Your task to perform on an android device: Go to Amazon Image 0: 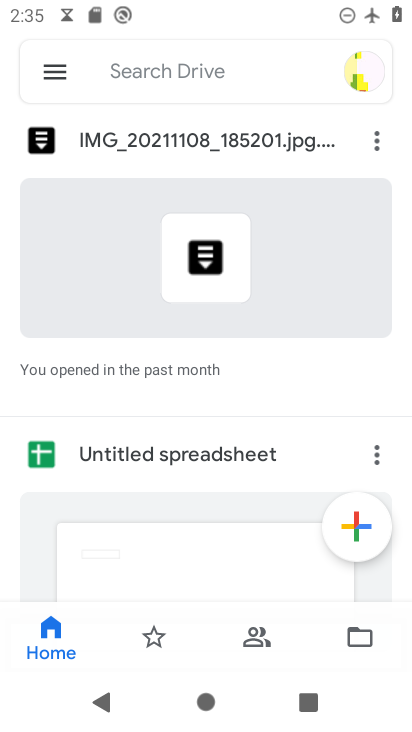
Step 0: press home button
Your task to perform on an android device: Go to Amazon Image 1: 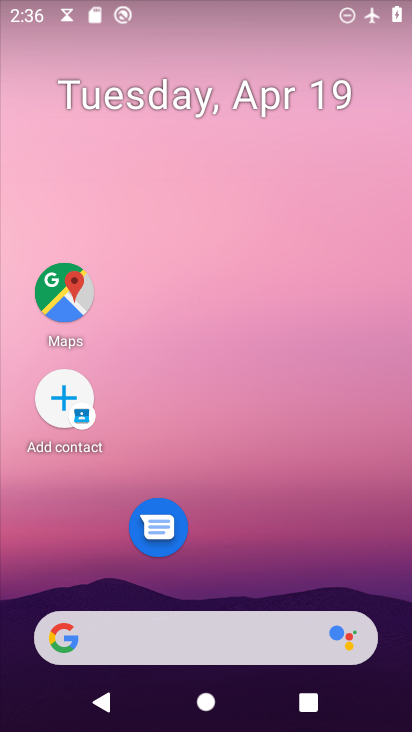
Step 1: drag from (232, 572) to (279, 159)
Your task to perform on an android device: Go to Amazon Image 2: 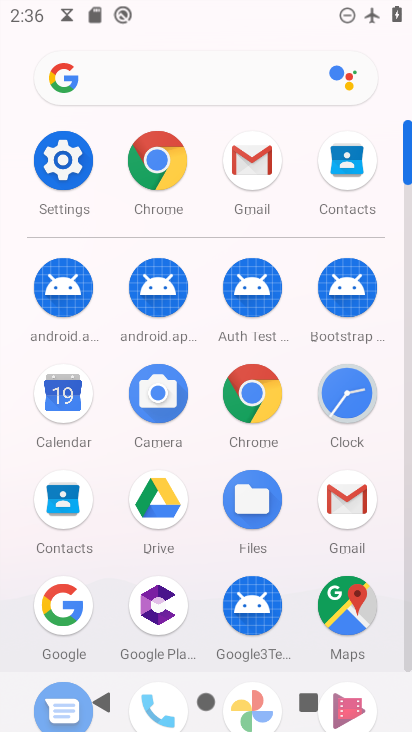
Step 2: click (161, 159)
Your task to perform on an android device: Go to Amazon Image 3: 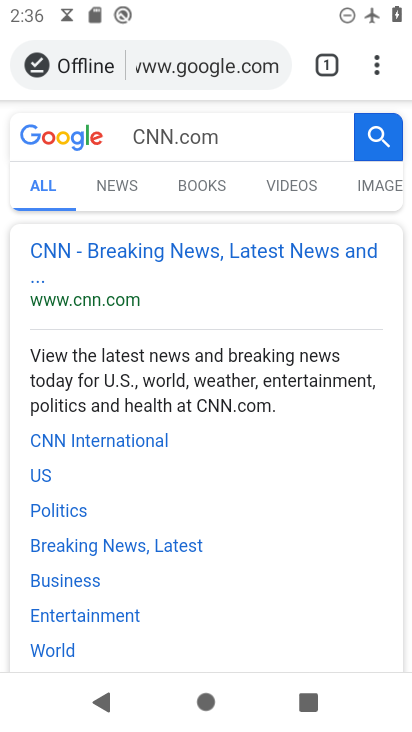
Step 3: click (233, 73)
Your task to perform on an android device: Go to Amazon Image 4: 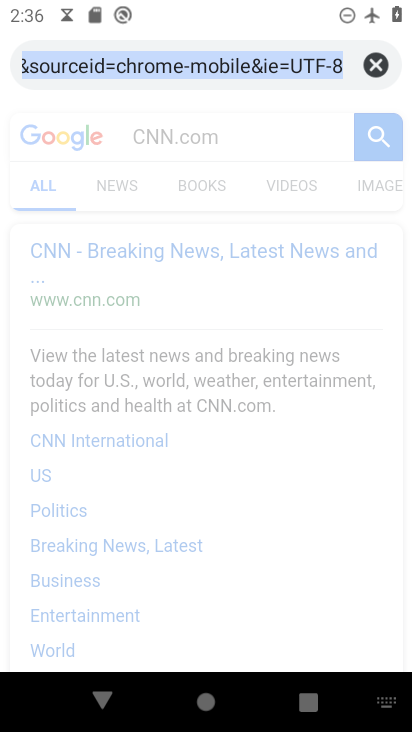
Step 4: click (374, 63)
Your task to perform on an android device: Go to Amazon Image 5: 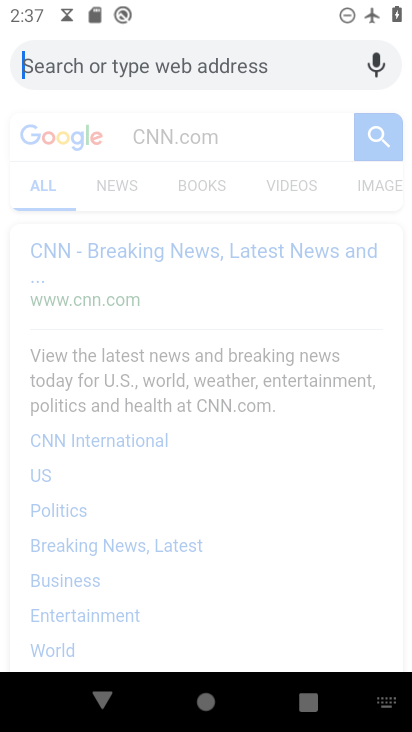
Step 5: type "Amazon"
Your task to perform on an android device: Go to Amazon Image 6: 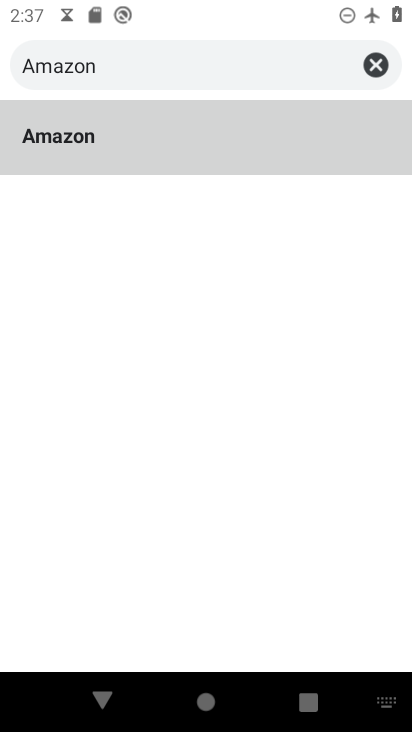
Step 6: click (44, 143)
Your task to perform on an android device: Go to Amazon Image 7: 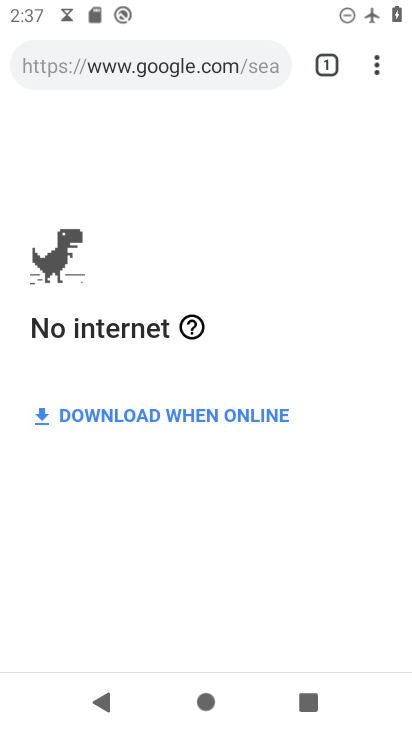
Step 7: task complete